Your task to perform on an android device: Search for vegetarian restaurants on Maps Image 0: 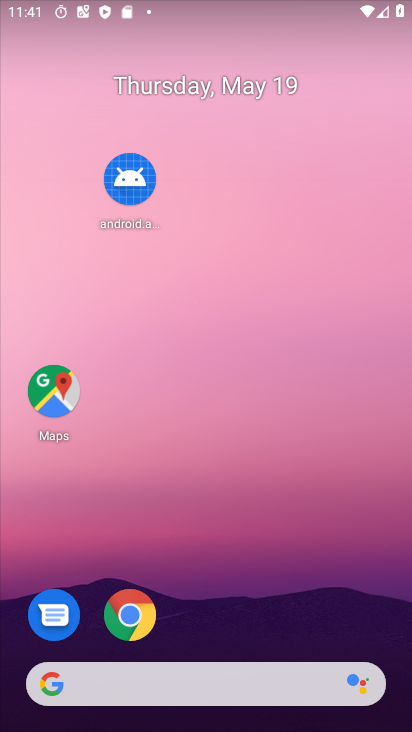
Step 0: click (46, 392)
Your task to perform on an android device: Search for vegetarian restaurants on Maps Image 1: 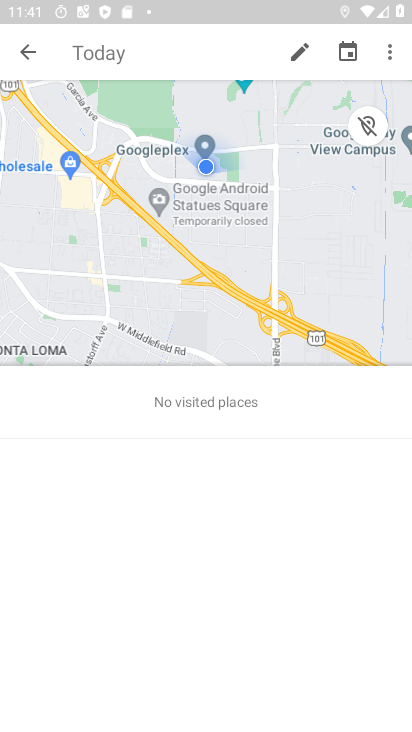
Step 1: click (39, 59)
Your task to perform on an android device: Search for vegetarian restaurants on Maps Image 2: 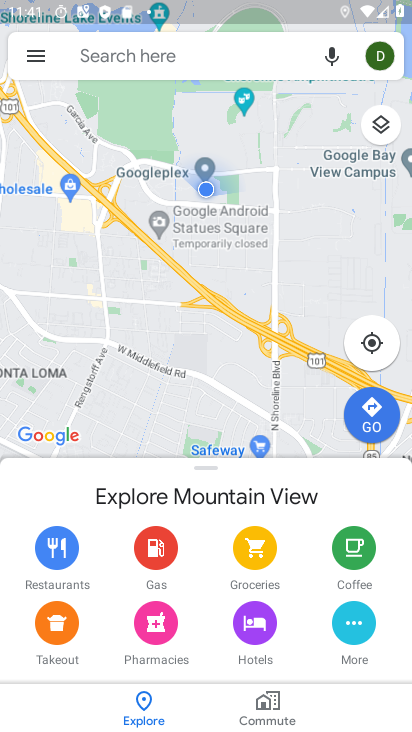
Step 2: click (209, 63)
Your task to perform on an android device: Search for vegetarian restaurants on Maps Image 3: 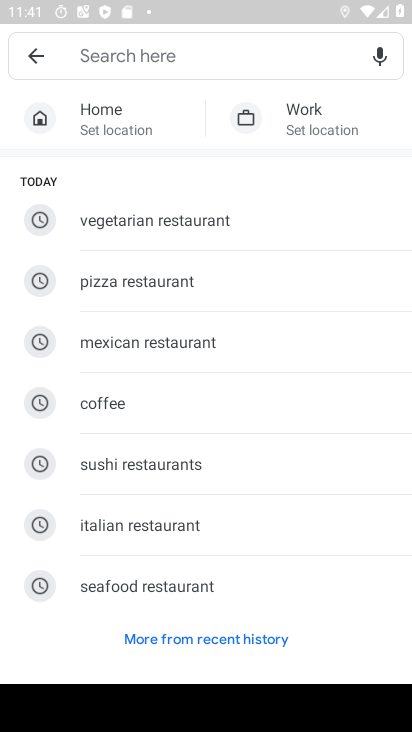
Step 3: click (237, 206)
Your task to perform on an android device: Search for vegetarian restaurants on Maps Image 4: 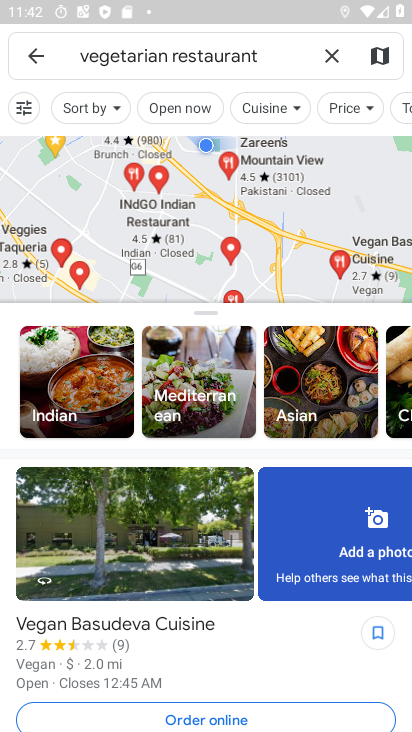
Step 4: task complete